Your task to perform on an android device: Open the stopwatch Image 0: 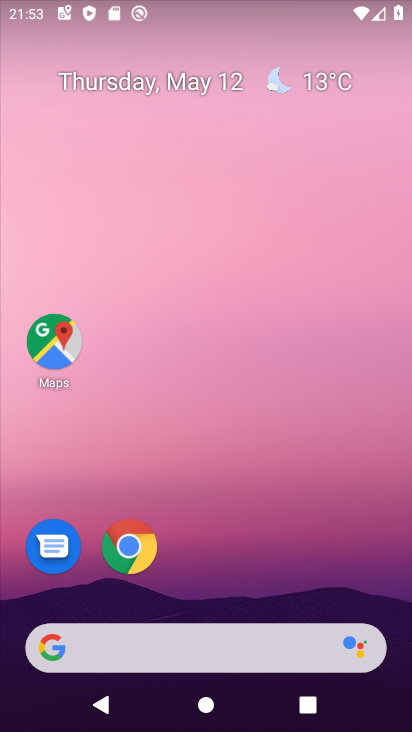
Step 0: drag from (298, 543) to (266, 24)
Your task to perform on an android device: Open the stopwatch Image 1: 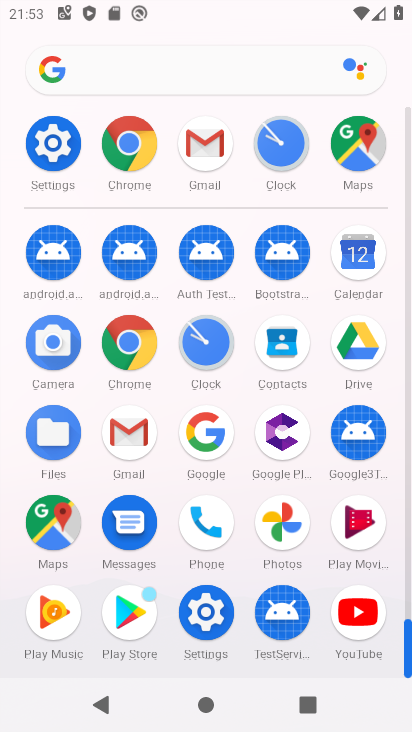
Step 1: click (206, 343)
Your task to perform on an android device: Open the stopwatch Image 2: 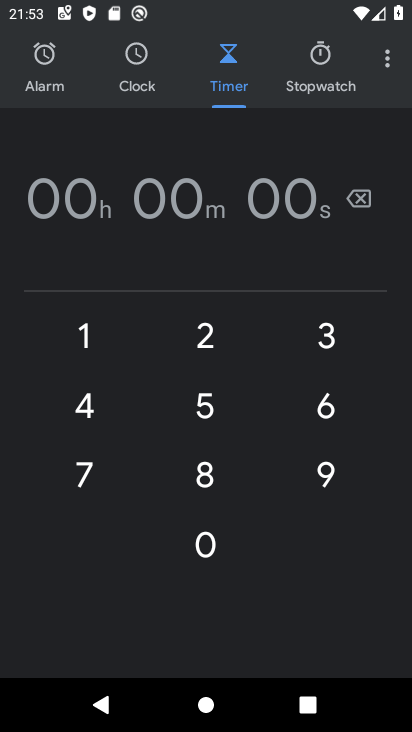
Step 2: click (329, 79)
Your task to perform on an android device: Open the stopwatch Image 3: 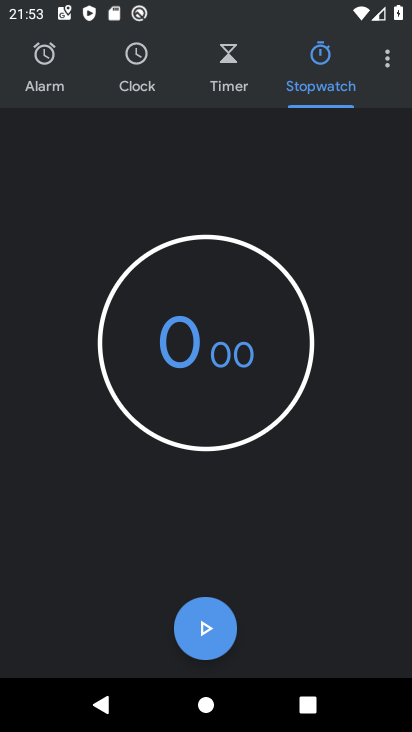
Step 3: task complete